Your task to perform on an android device: change timer sound Image 0: 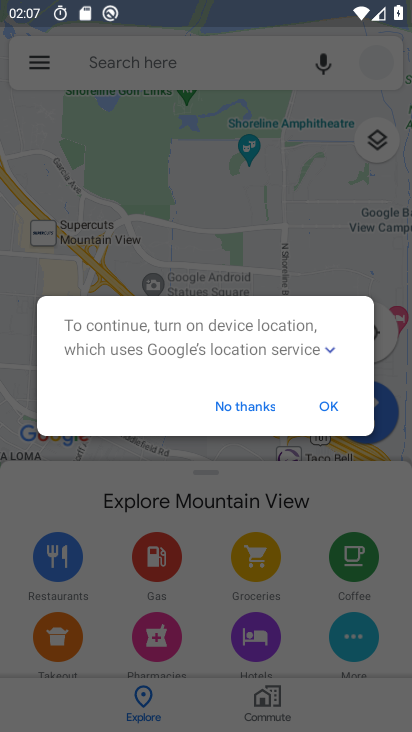
Step 0: press home button
Your task to perform on an android device: change timer sound Image 1: 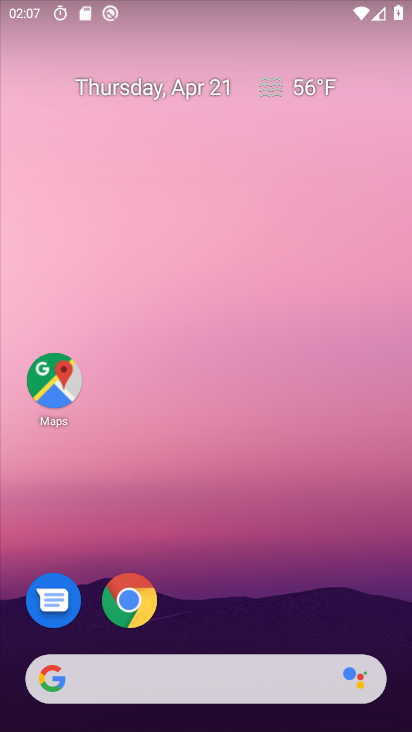
Step 1: drag from (288, 581) to (243, 146)
Your task to perform on an android device: change timer sound Image 2: 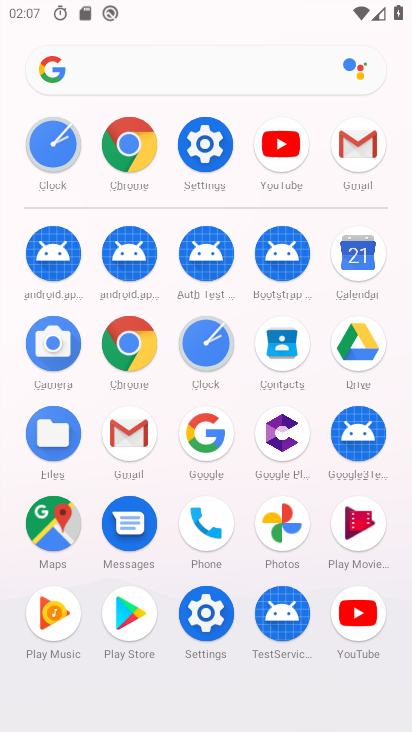
Step 2: click (55, 154)
Your task to perform on an android device: change timer sound Image 3: 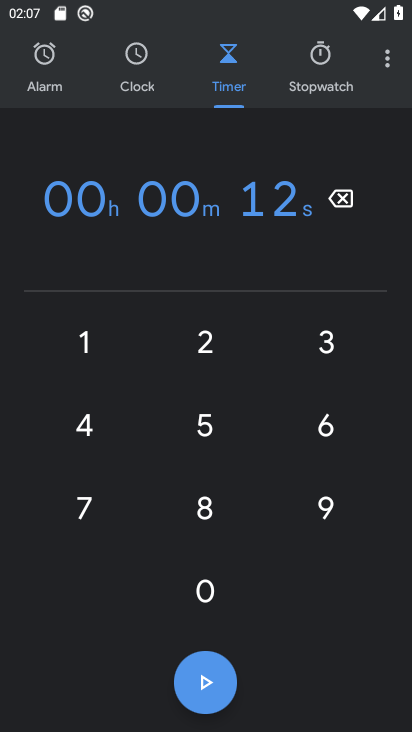
Step 3: click (389, 58)
Your task to perform on an android device: change timer sound Image 4: 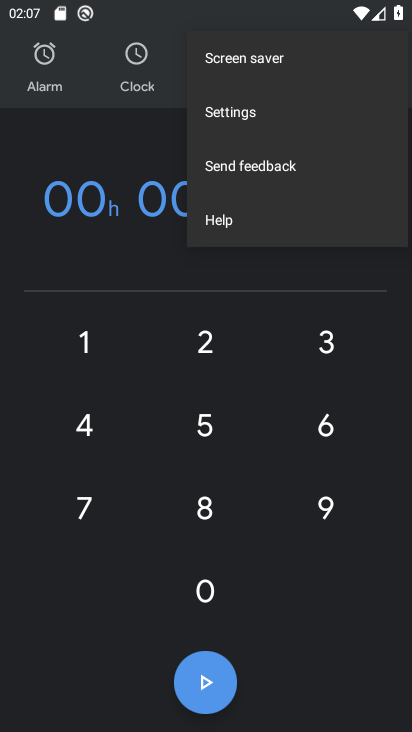
Step 4: click (315, 117)
Your task to perform on an android device: change timer sound Image 5: 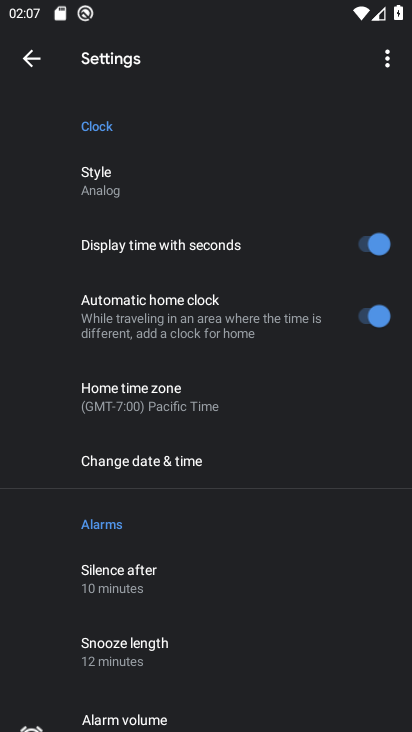
Step 5: drag from (257, 636) to (245, 107)
Your task to perform on an android device: change timer sound Image 6: 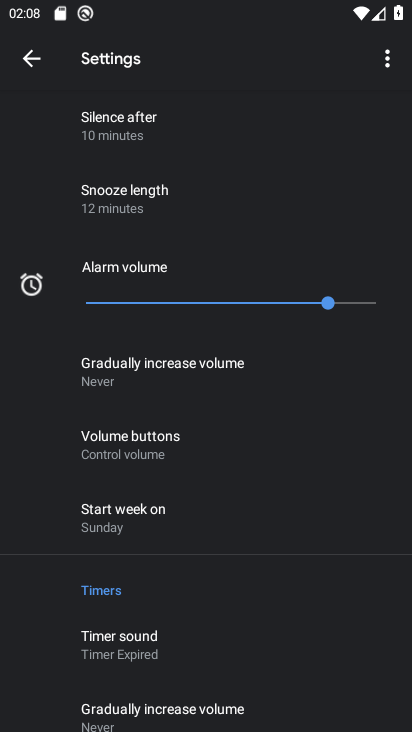
Step 6: click (142, 644)
Your task to perform on an android device: change timer sound Image 7: 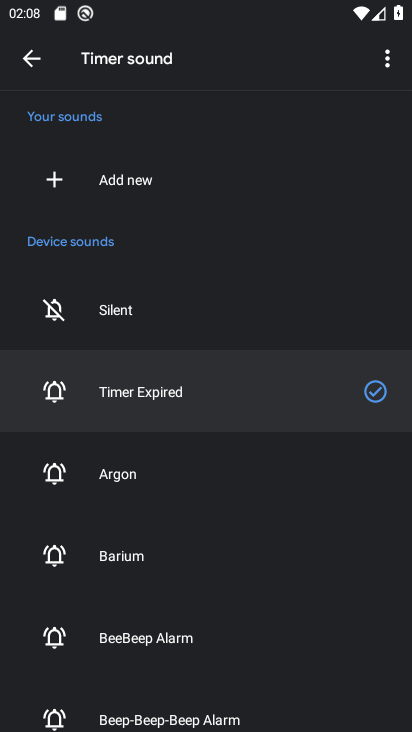
Step 7: click (150, 482)
Your task to perform on an android device: change timer sound Image 8: 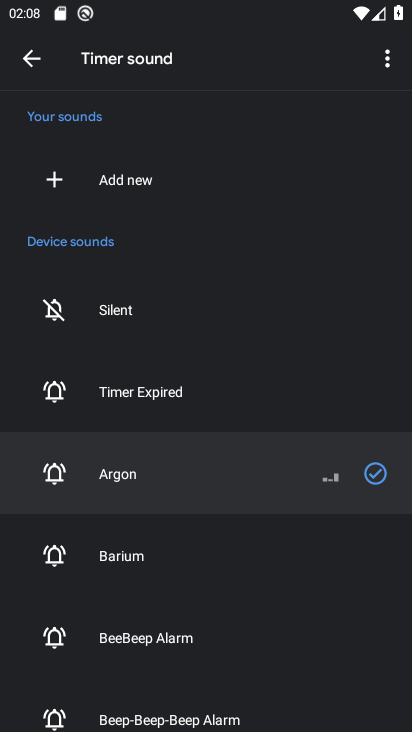
Step 8: task complete